Your task to perform on an android device: Clear the shopping cart on walmart. Search for apple airpods pro on walmart, select the first entry, add it to the cart, then select checkout. Image 0: 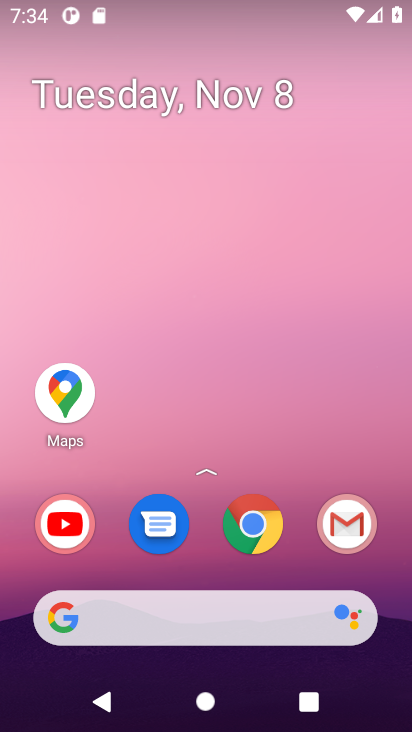
Step 0: click (265, 525)
Your task to perform on an android device: Clear the shopping cart on walmart. Search for apple airpods pro on walmart, select the first entry, add it to the cart, then select checkout. Image 1: 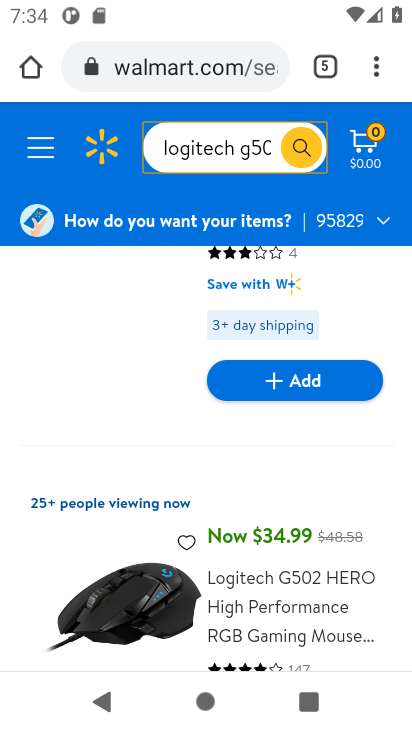
Step 1: click (357, 155)
Your task to perform on an android device: Clear the shopping cart on walmart. Search for apple airpods pro on walmart, select the first entry, add it to the cart, then select checkout. Image 2: 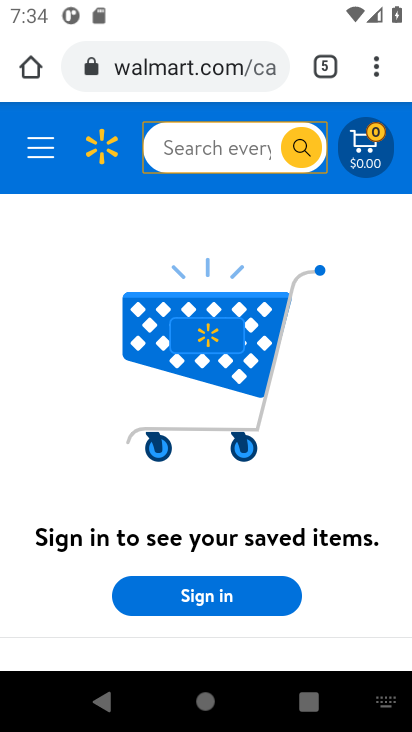
Step 2: click (211, 144)
Your task to perform on an android device: Clear the shopping cart on walmart. Search for apple airpods pro on walmart, select the first entry, add it to the cart, then select checkout. Image 3: 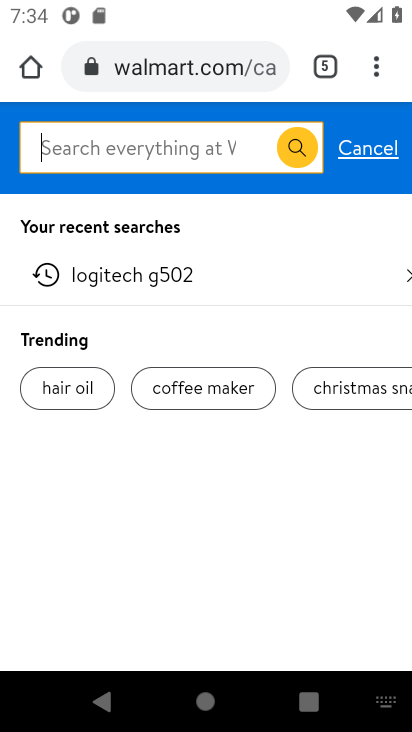
Step 3: type "apple airpods pro"
Your task to perform on an android device: Clear the shopping cart on walmart. Search for apple airpods pro on walmart, select the first entry, add it to the cart, then select checkout. Image 4: 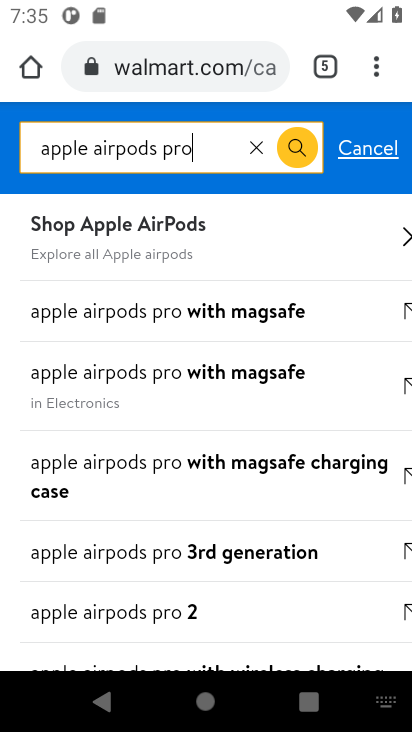
Step 4: click (167, 232)
Your task to perform on an android device: Clear the shopping cart on walmart. Search for apple airpods pro on walmart, select the first entry, add it to the cart, then select checkout. Image 5: 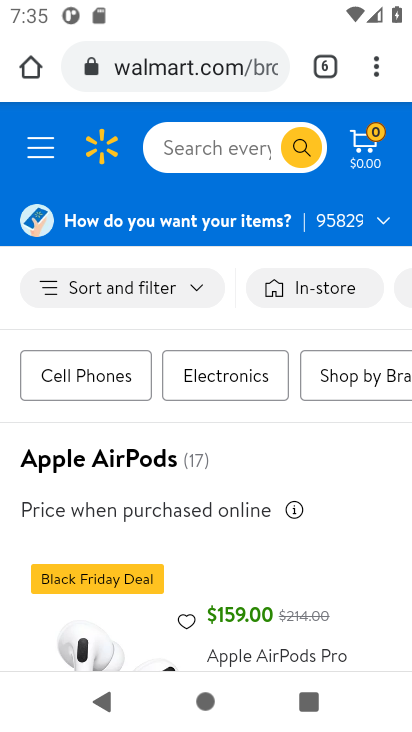
Step 5: drag from (197, 550) to (201, 393)
Your task to perform on an android device: Clear the shopping cart on walmart. Search for apple airpods pro on walmart, select the first entry, add it to the cart, then select checkout. Image 6: 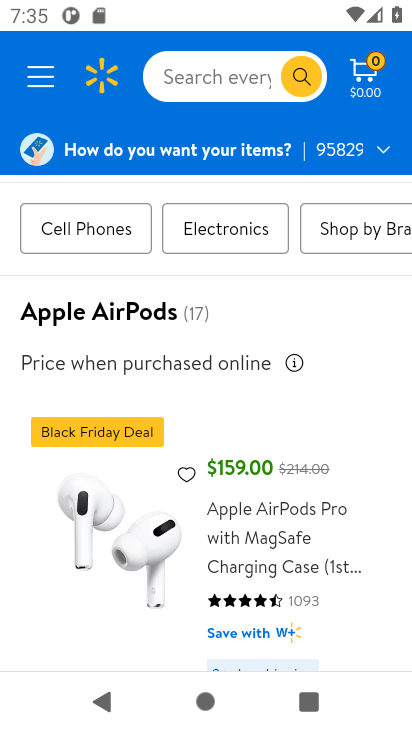
Step 6: drag from (276, 557) to (271, 379)
Your task to perform on an android device: Clear the shopping cart on walmart. Search for apple airpods pro on walmart, select the first entry, add it to the cart, then select checkout. Image 7: 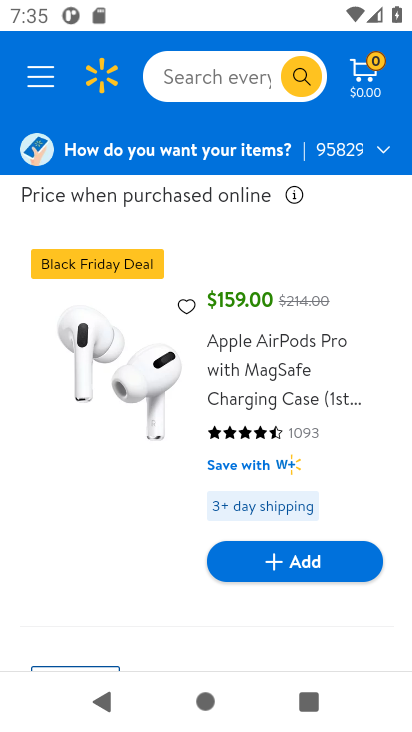
Step 7: click (287, 566)
Your task to perform on an android device: Clear the shopping cart on walmart. Search for apple airpods pro on walmart, select the first entry, add it to the cart, then select checkout. Image 8: 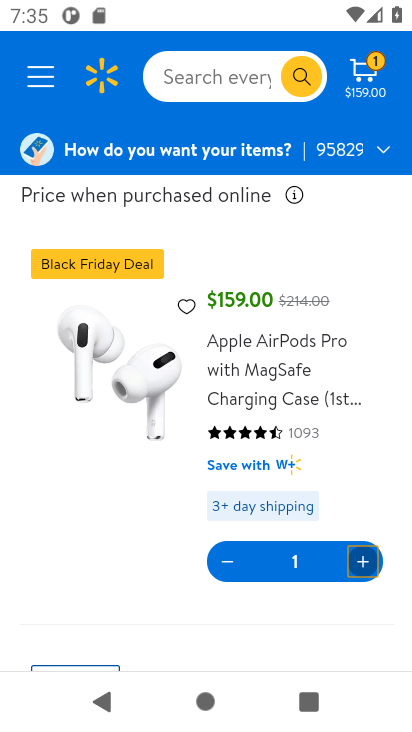
Step 8: click (371, 68)
Your task to perform on an android device: Clear the shopping cart on walmart. Search for apple airpods pro on walmart, select the first entry, add it to the cart, then select checkout. Image 9: 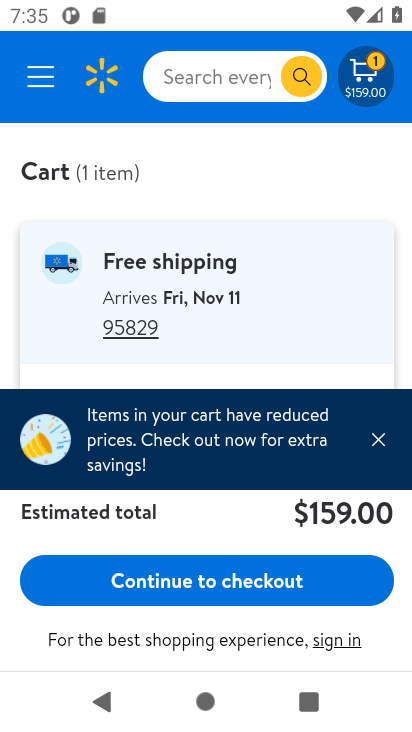
Step 9: click (209, 580)
Your task to perform on an android device: Clear the shopping cart on walmart. Search for apple airpods pro on walmart, select the first entry, add it to the cart, then select checkout. Image 10: 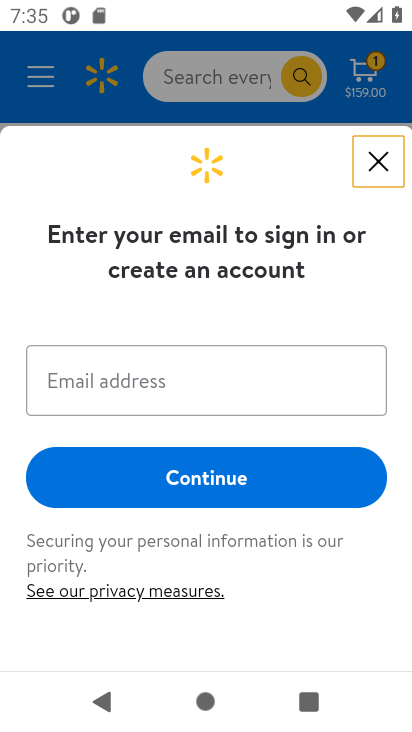
Step 10: task complete